Your task to perform on an android device: turn off javascript in the chrome app Image 0: 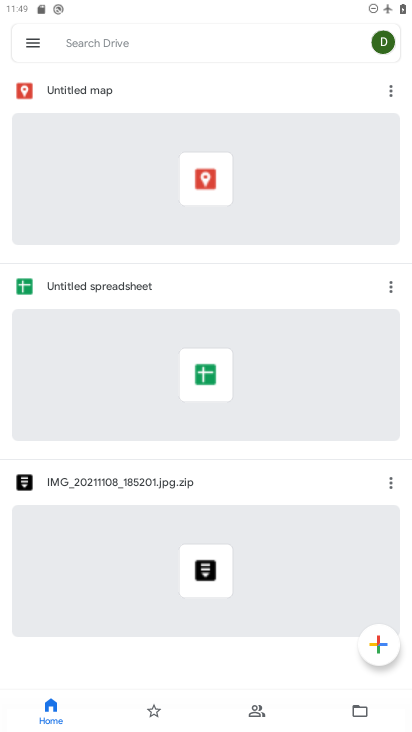
Step 0: click (19, 44)
Your task to perform on an android device: turn off javascript in the chrome app Image 1: 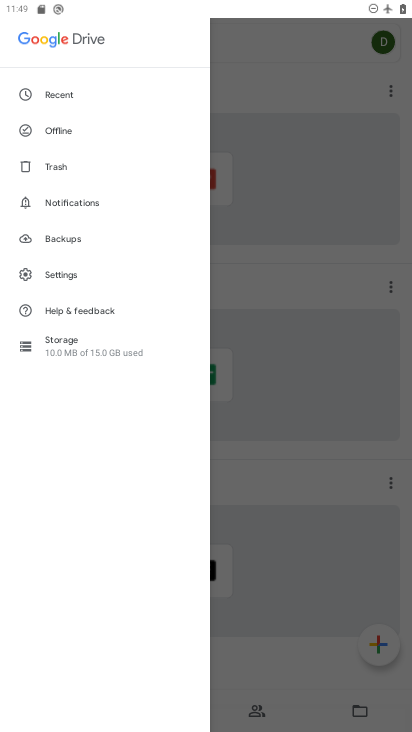
Step 1: click (45, 276)
Your task to perform on an android device: turn off javascript in the chrome app Image 2: 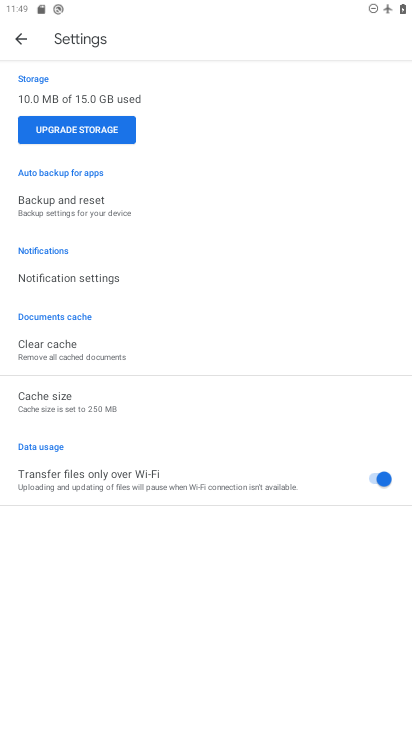
Step 2: click (19, 39)
Your task to perform on an android device: turn off javascript in the chrome app Image 3: 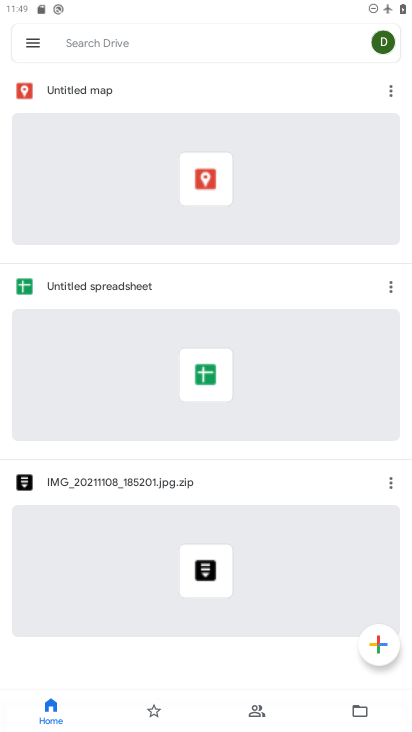
Step 3: press home button
Your task to perform on an android device: turn off javascript in the chrome app Image 4: 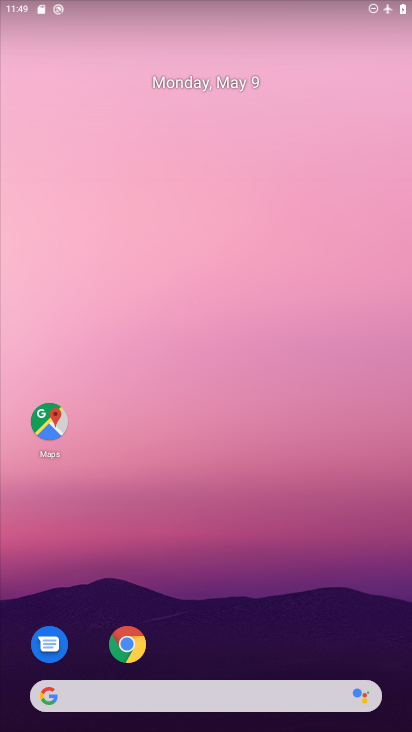
Step 4: click (130, 628)
Your task to perform on an android device: turn off javascript in the chrome app Image 5: 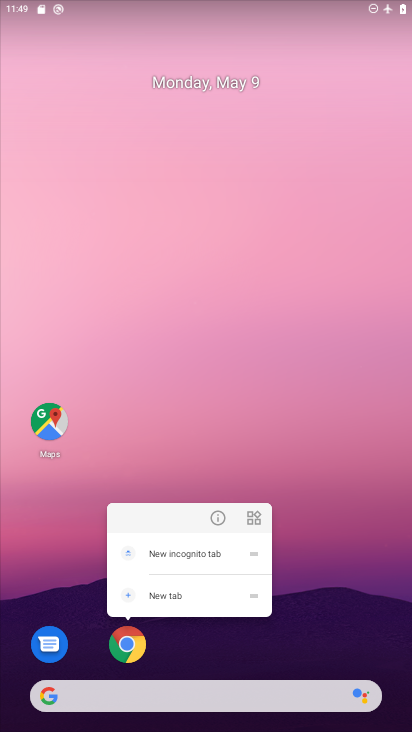
Step 5: click (126, 650)
Your task to perform on an android device: turn off javascript in the chrome app Image 6: 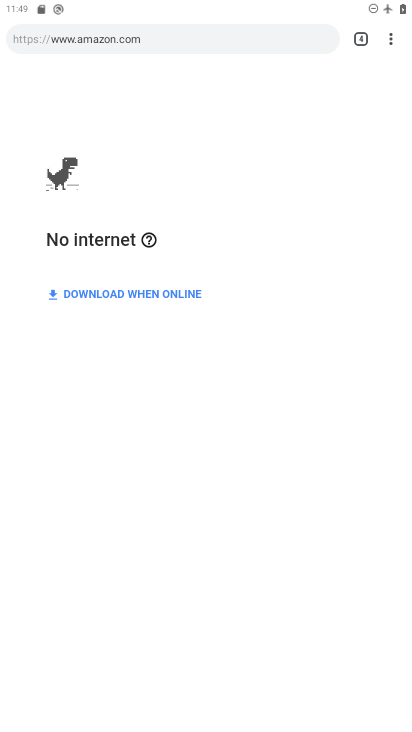
Step 6: click (387, 50)
Your task to perform on an android device: turn off javascript in the chrome app Image 7: 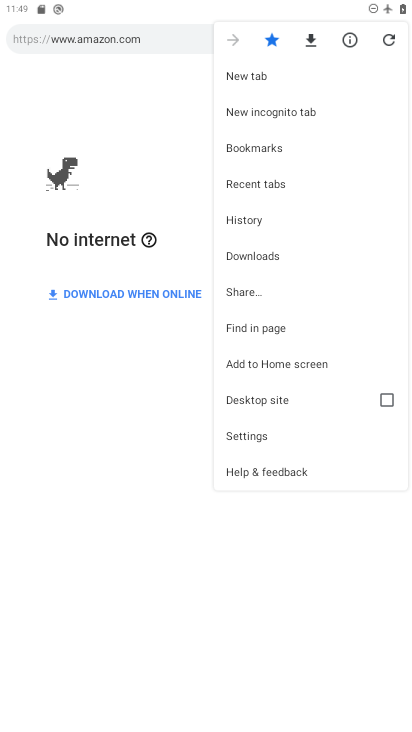
Step 7: click (264, 425)
Your task to perform on an android device: turn off javascript in the chrome app Image 8: 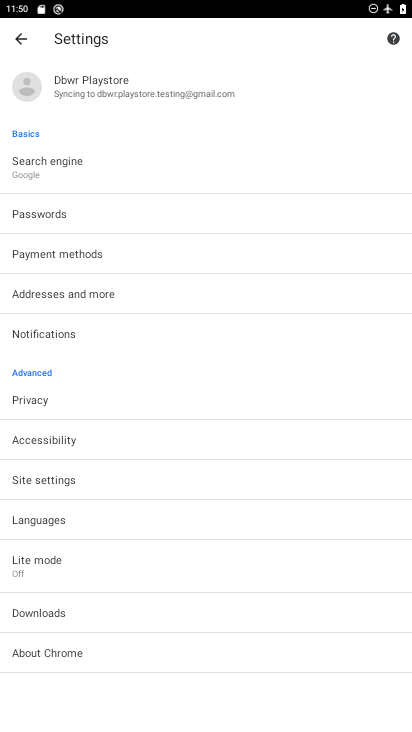
Step 8: click (74, 482)
Your task to perform on an android device: turn off javascript in the chrome app Image 9: 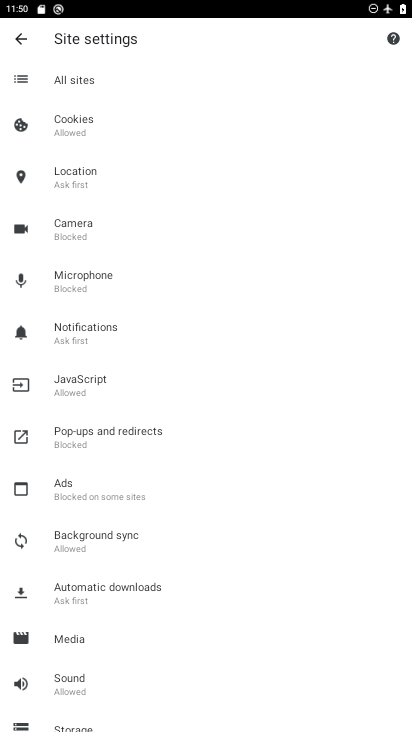
Step 9: click (157, 374)
Your task to perform on an android device: turn off javascript in the chrome app Image 10: 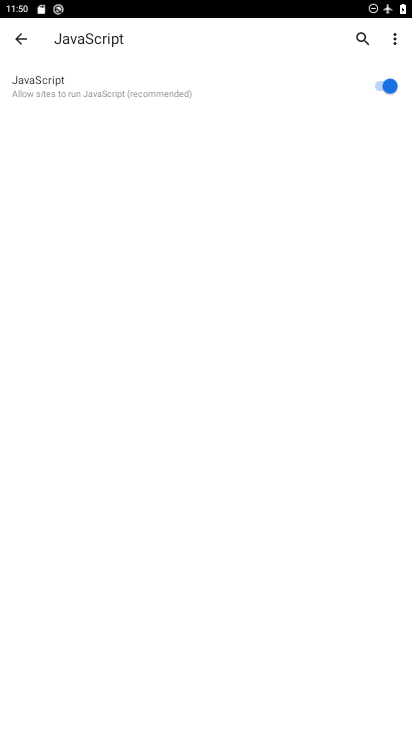
Step 10: click (373, 86)
Your task to perform on an android device: turn off javascript in the chrome app Image 11: 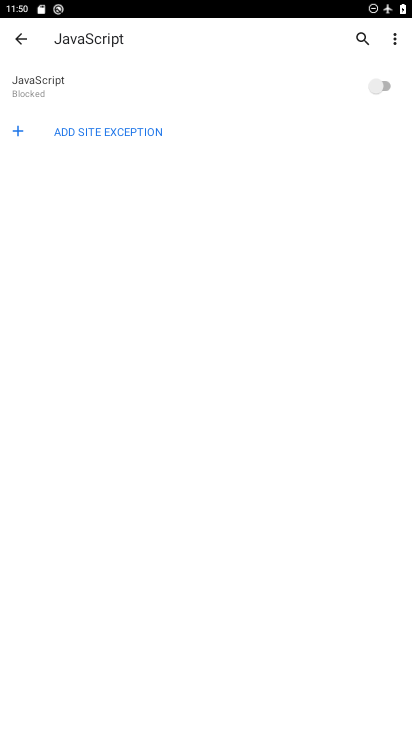
Step 11: task complete